Your task to perform on an android device: find snoozed emails in the gmail app Image 0: 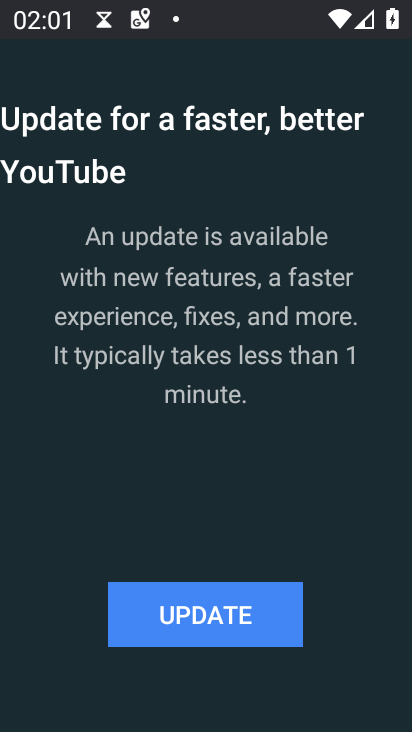
Step 0: press home button
Your task to perform on an android device: find snoozed emails in the gmail app Image 1: 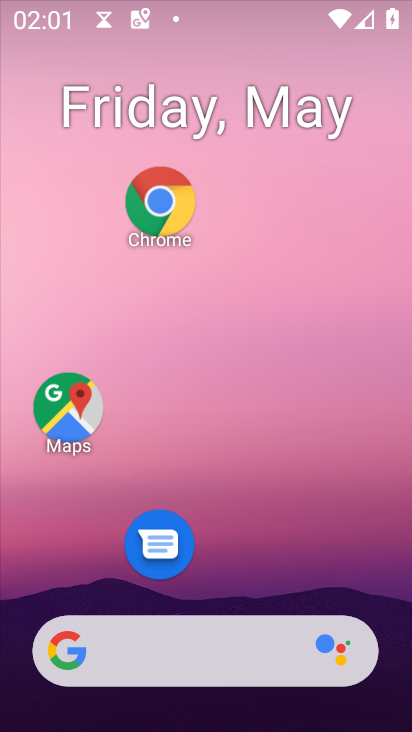
Step 1: drag from (318, 562) to (283, 205)
Your task to perform on an android device: find snoozed emails in the gmail app Image 2: 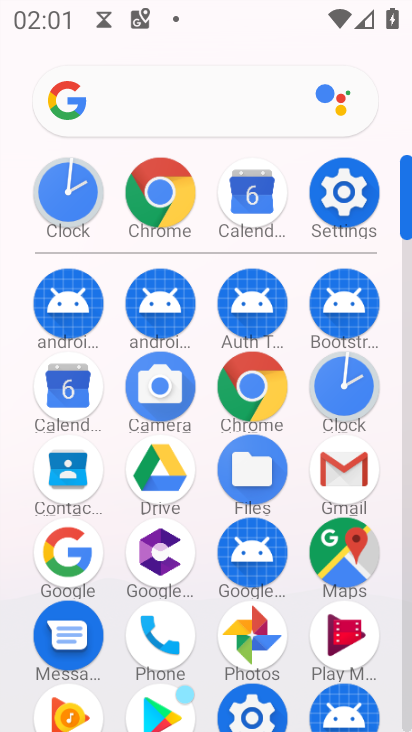
Step 2: click (346, 482)
Your task to perform on an android device: find snoozed emails in the gmail app Image 3: 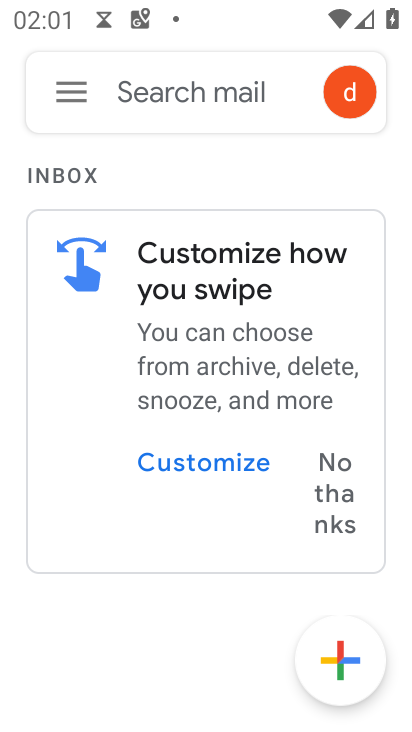
Step 3: click (53, 100)
Your task to perform on an android device: find snoozed emails in the gmail app Image 4: 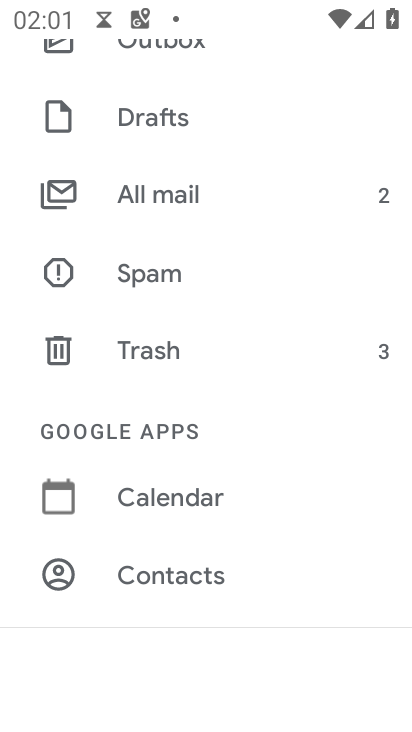
Step 4: drag from (213, 272) to (260, 602)
Your task to perform on an android device: find snoozed emails in the gmail app Image 5: 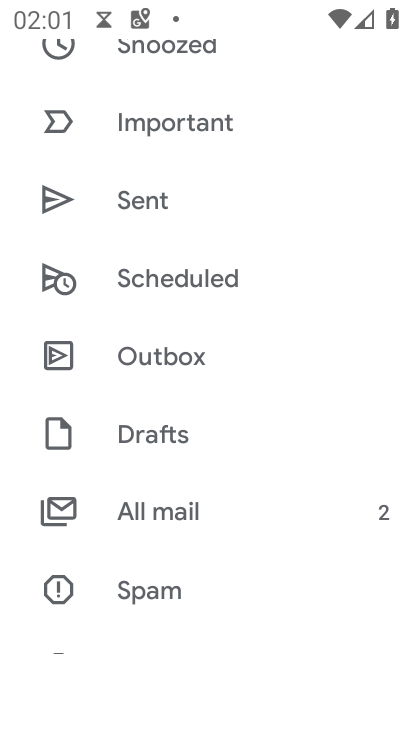
Step 5: drag from (203, 336) to (228, 626)
Your task to perform on an android device: find snoozed emails in the gmail app Image 6: 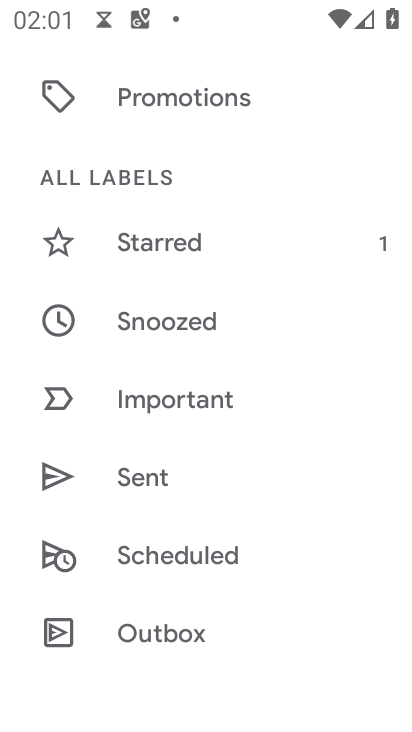
Step 6: click (168, 341)
Your task to perform on an android device: find snoozed emails in the gmail app Image 7: 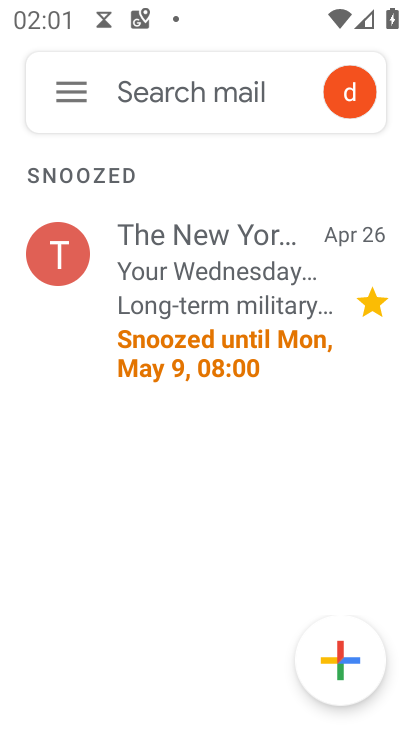
Step 7: click (224, 299)
Your task to perform on an android device: find snoozed emails in the gmail app Image 8: 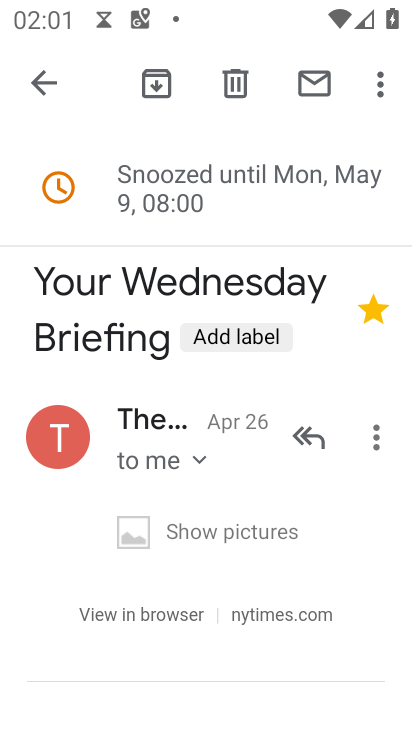
Step 8: task complete